Your task to perform on an android device: clear all cookies in the chrome app Image 0: 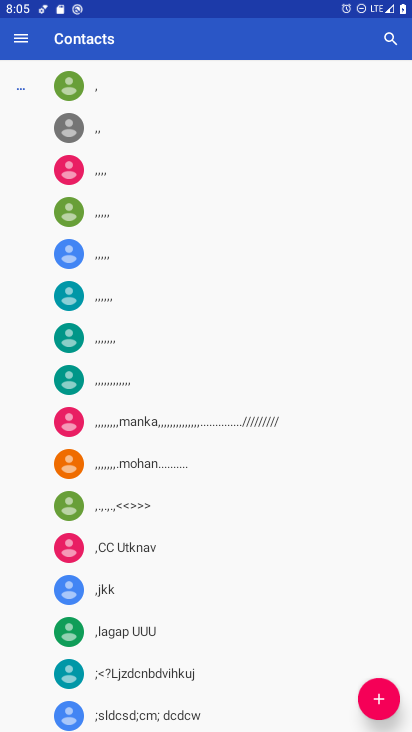
Step 0: press home button
Your task to perform on an android device: clear all cookies in the chrome app Image 1: 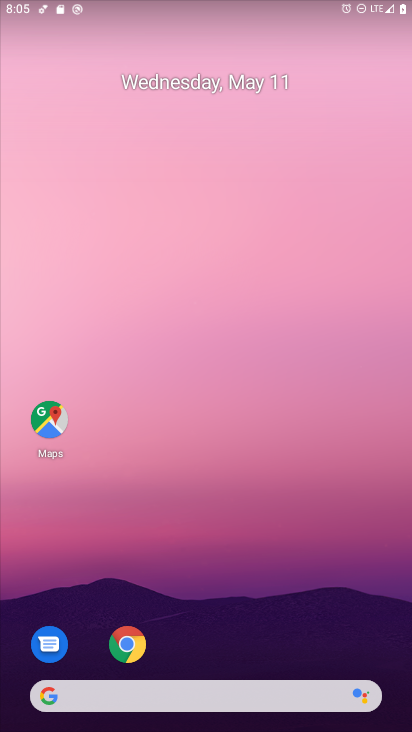
Step 1: click (130, 643)
Your task to perform on an android device: clear all cookies in the chrome app Image 2: 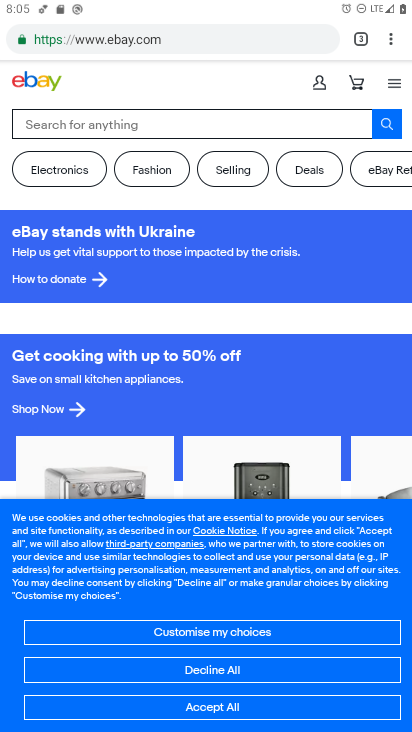
Step 2: click (390, 37)
Your task to perform on an android device: clear all cookies in the chrome app Image 3: 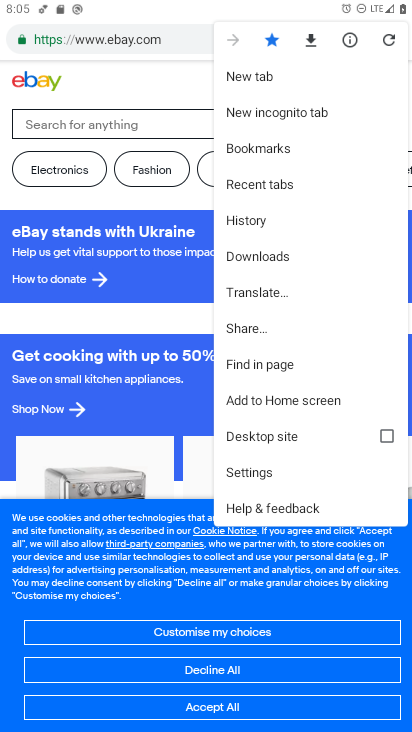
Step 3: click (252, 476)
Your task to perform on an android device: clear all cookies in the chrome app Image 4: 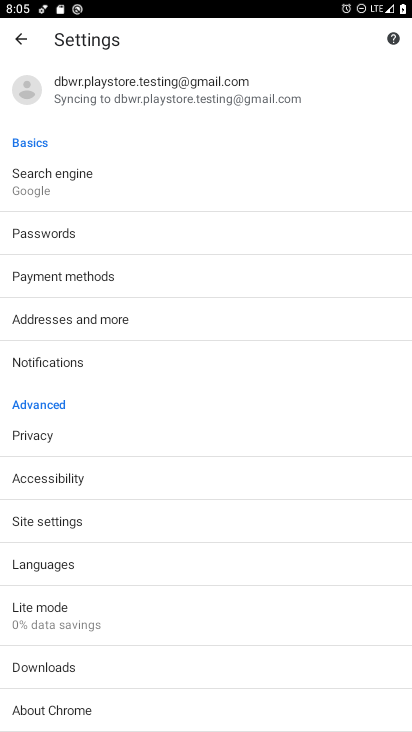
Step 4: click (29, 431)
Your task to perform on an android device: clear all cookies in the chrome app Image 5: 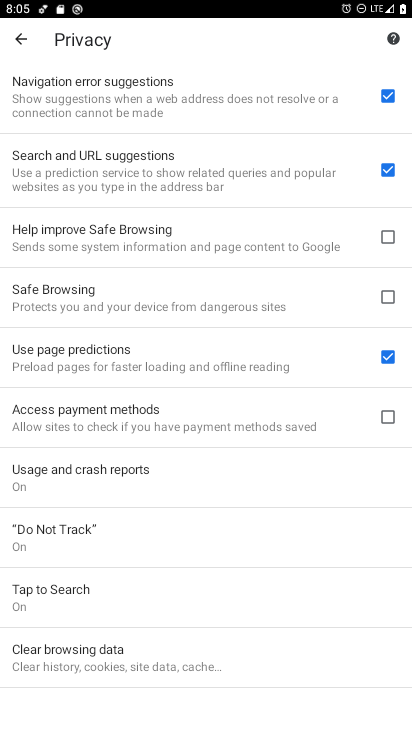
Step 5: click (78, 641)
Your task to perform on an android device: clear all cookies in the chrome app Image 6: 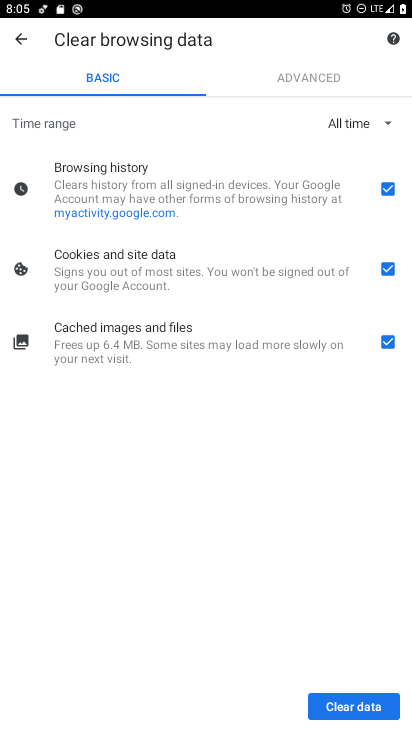
Step 6: click (388, 179)
Your task to perform on an android device: clear all cookies in the chrome app Image 7: 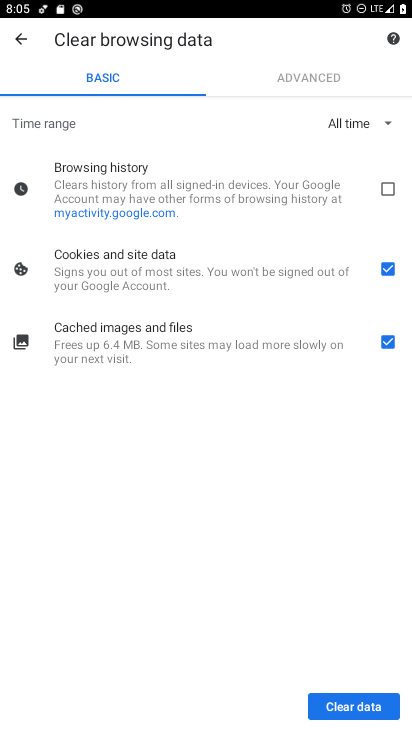
Step 7: click (383, 340)
Your task to perform on an android device: clear all cookies in the chrome app Image 8: 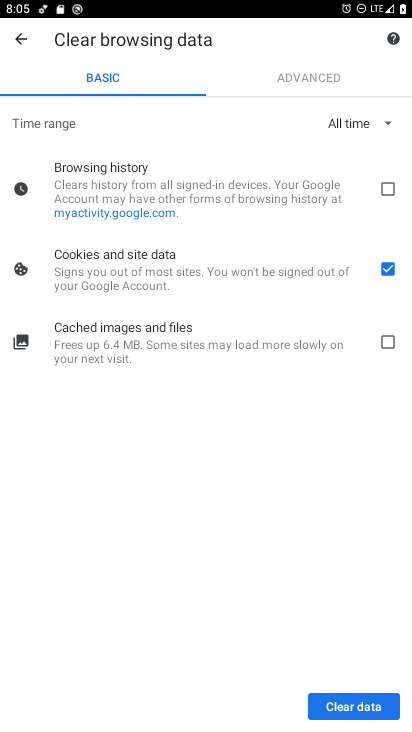
Step 8: click (347, 699)
Your task to perform on an android device: clear all cookies in the chrome app Image 9: 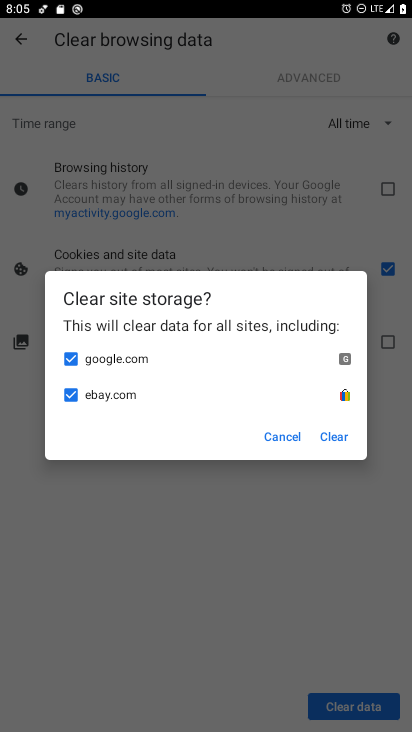
Step 9: click (335, 435)
Your task to perform on an android device: clear all cookies in the chrome app Image 10: 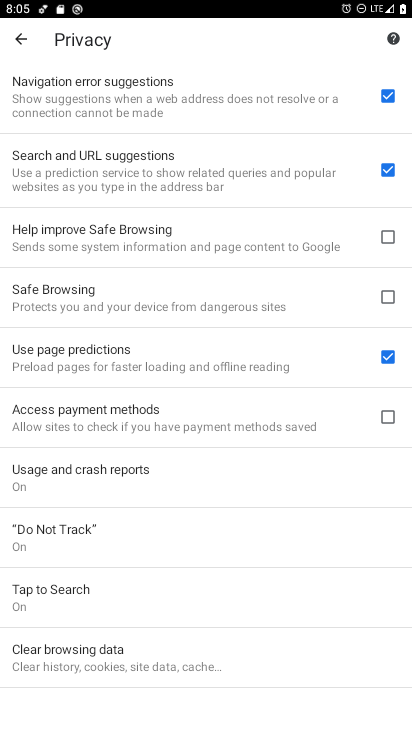
Step 10: task complete